Your task to perform on an android device: choose inbox layout in the gmail app Image 0: 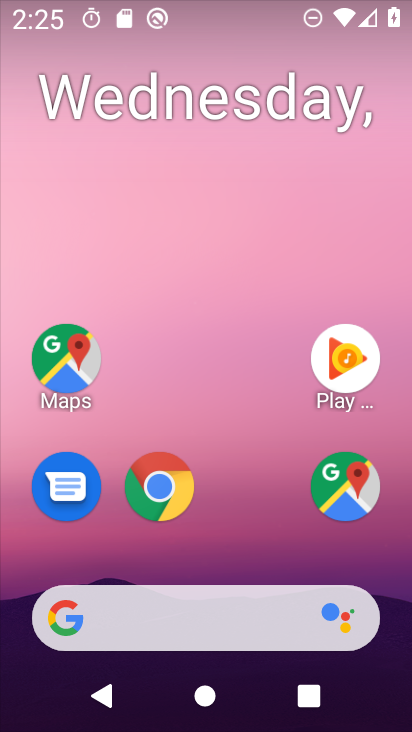
Step 0: press home button
Your task to perform on an android device: choose inbox layout in the gmail app Image 1: 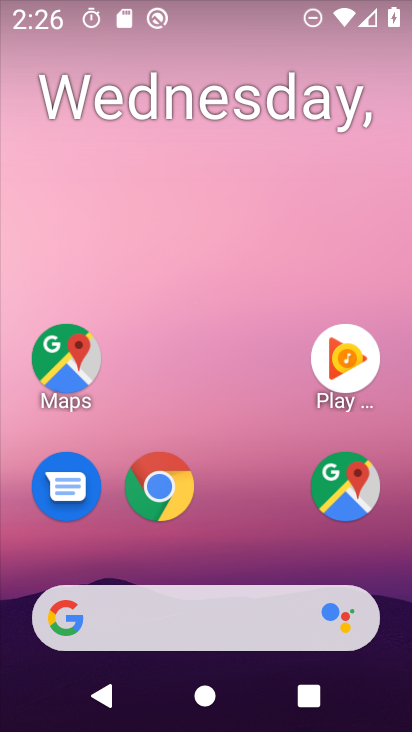
Step 1: drag from (258, 551) to (239, 84)
Your task to perform on an android device: choose inbox layout in the gmail app Image 2: 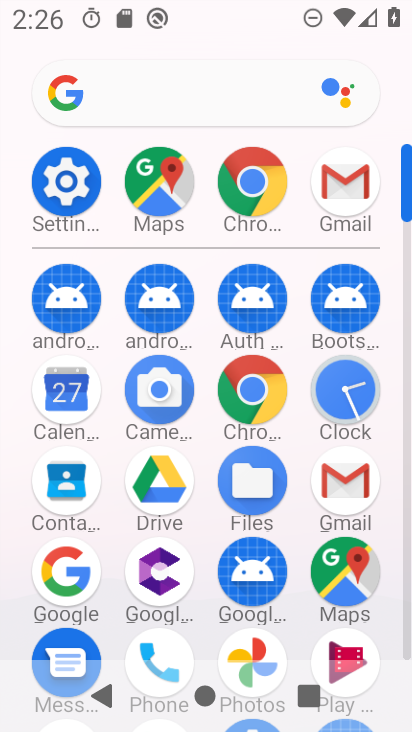
Step 2: click (363, 480)
Your task to perform on an android device: choose inbox layout in the gmail app Image 3: 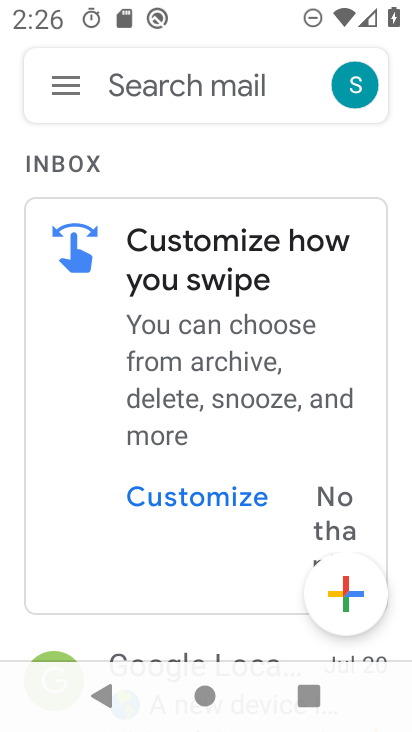
Step 3: click (67, 83)
Your task to perform on an android device: choose inbox layout in the gmail app Image 4: 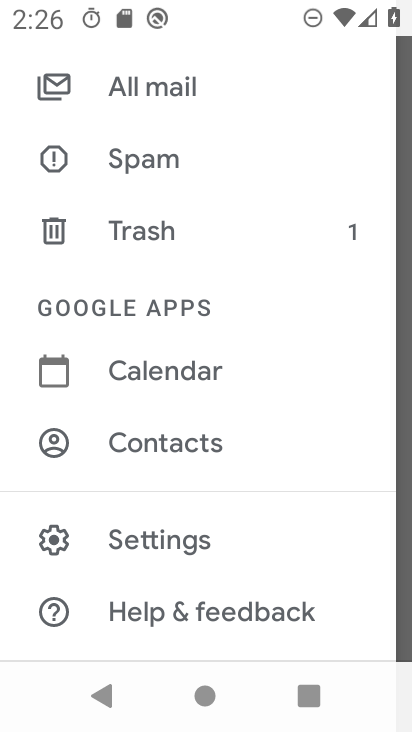
Step 4: drag from (296, 461) to (294, 385)
Your task to perform on an android device: choose inbox layout in the gmail app Image 5: 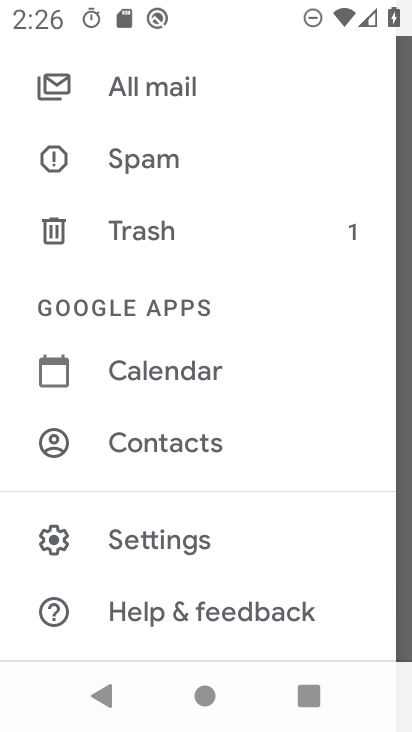
Step 5: click (283, 534)
Your task to perform on an android device: choose inbox layout in the gmail app Image 6: 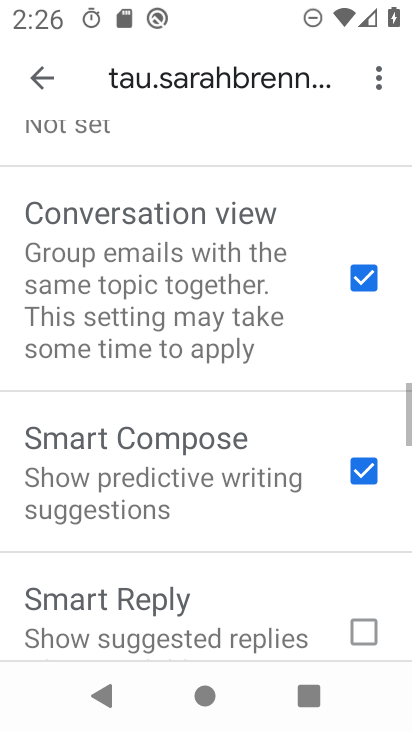
Step 6: drag from (282, 522) to (288, 456)
Your task to perform on an android device: choose inbox layout in the gmail app Image 7: 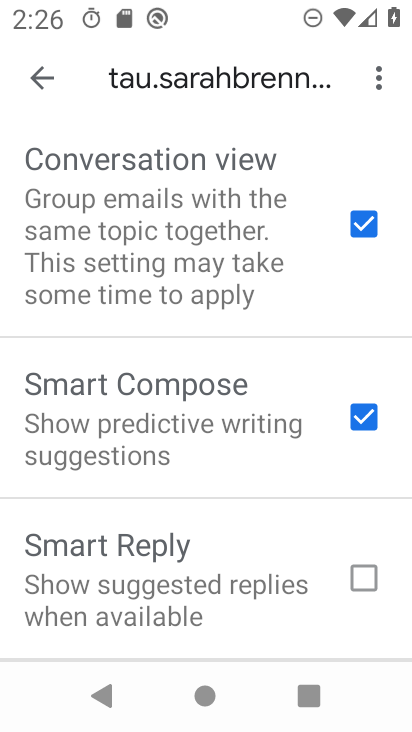
Step 7: drag from (273, 274) to (278, 369)
Your task to perform on an android device: choose inbox layout in the gmail app Image 8: 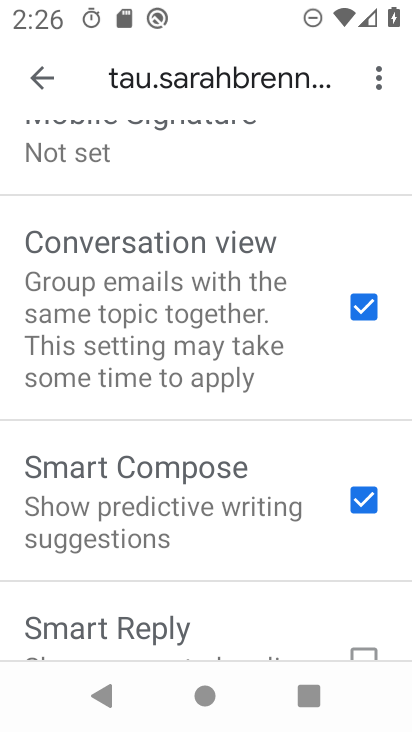
Step 8: drag from (290, 271) to (300, 380)
Your task to perform on an android device: choose inbox layout in the gmail app Image 9: 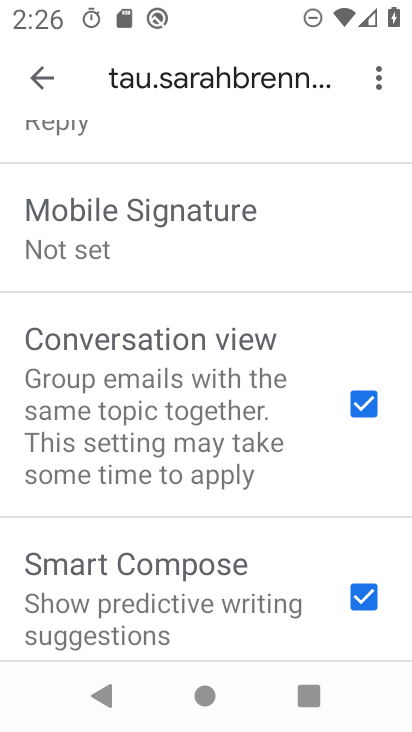
Step 9: drag from (286, 291) to (286, 439)
Your task to perform on an android device: choose inbox layout in the gmail app Image 10: 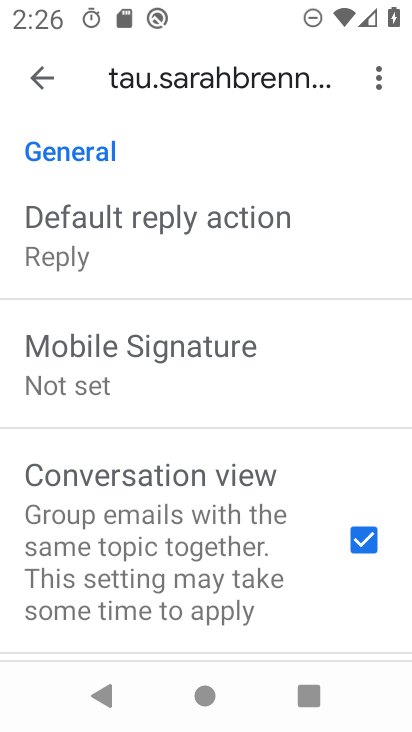
Step 10: drag from (275, 265) to (277, 395)
Your task to perform on an android device: choose inbox layout in the gmail app Image 11: 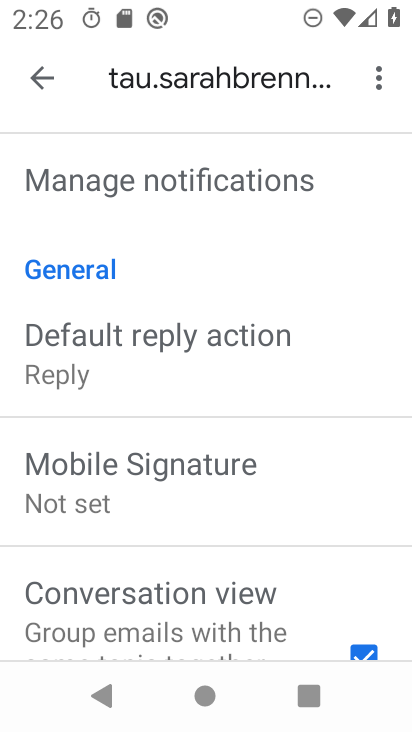
Step 11: drag from (266, 239) to (268, 383)
Your task to perform on an android device: choose inbox layout in the gmail app Image 12: 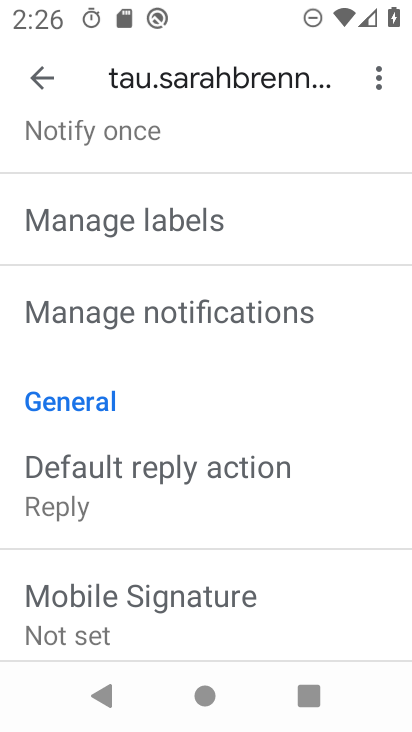
Step 12: drag from (263, 188) to (271, 342)
Your task to perform on an android device: choose inbox layout in the gmail app Image 13: 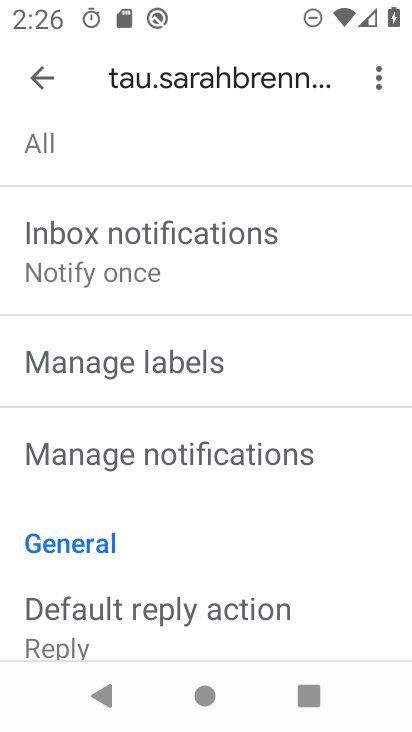
Step 13: drag from (256, 166) to (256, 379)
Your task to perform on an android device: choose inbox layout in the gmail app Image 14: 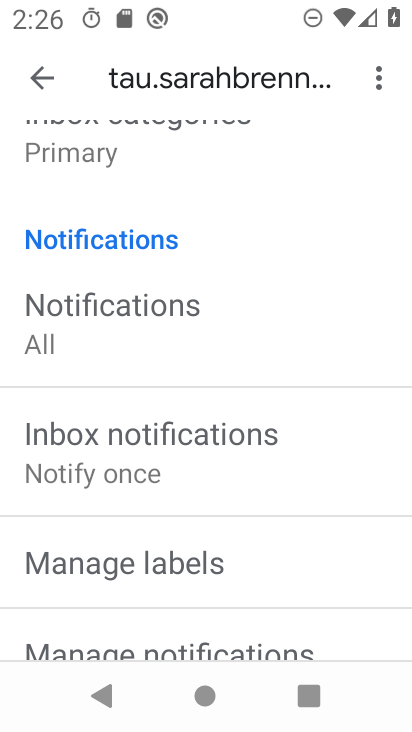
Step 14: drag from (241, 183) to (248, 438)
Your task to perform on an android device: choose inbox layout in the gmail app Image 15: 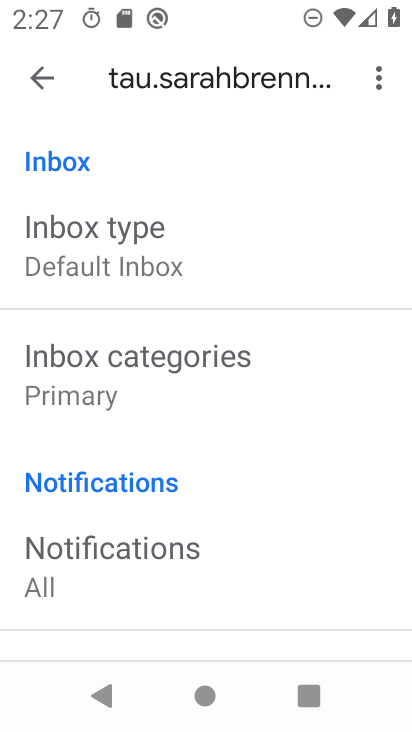
Step 15: click (116, 261)
Your task to perform on an android device: choose inbox layout in the gmail app Image 16: 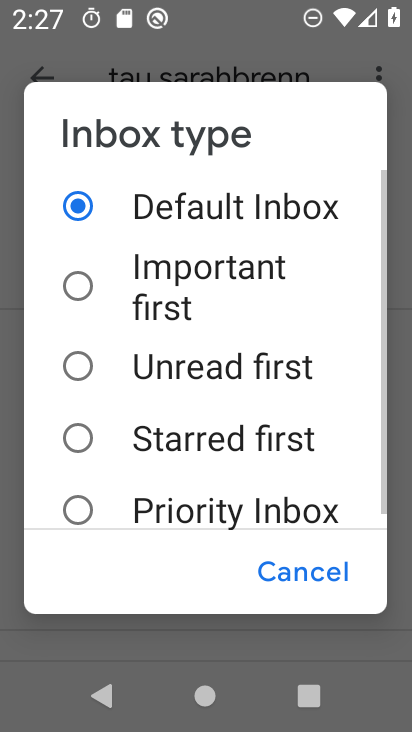
Step 16: click (164, 313)
Your task to perform on an android device: choose inbox layout in the gmail app Image 17: 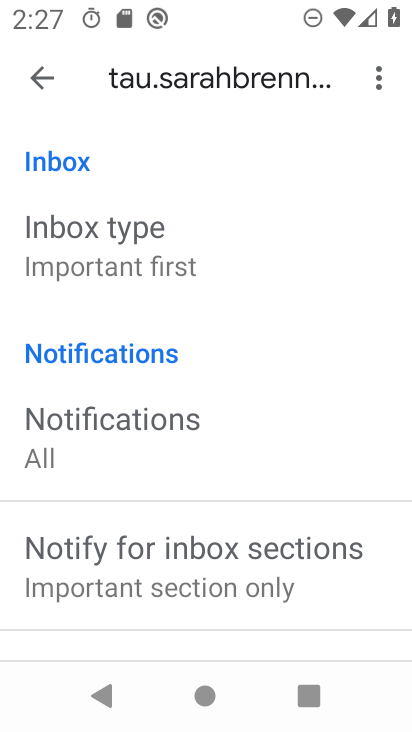
Step 17: task complete